Your task to perform on an android device: Open network settings Image 0: 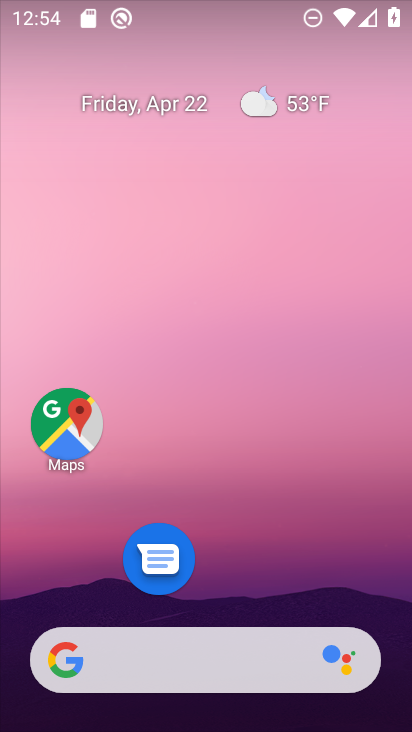
Step 0: drag from (226, 665) to (228, 119)
Your task to perform on an android device: Open network settings Image 1: 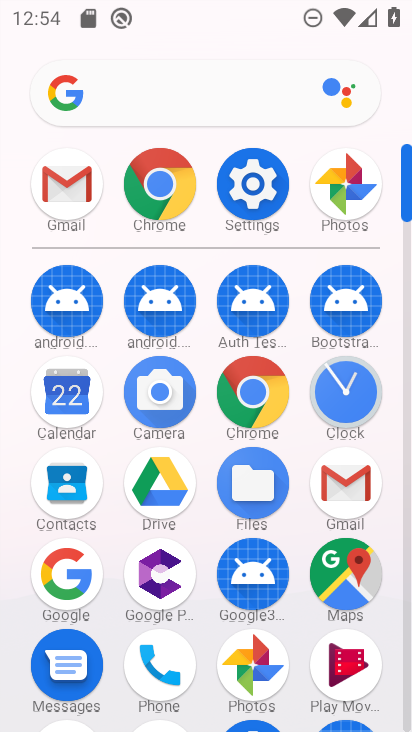
Step 1: click (254, 174)
Your task to perform on an android device: Open network settings Image 2: 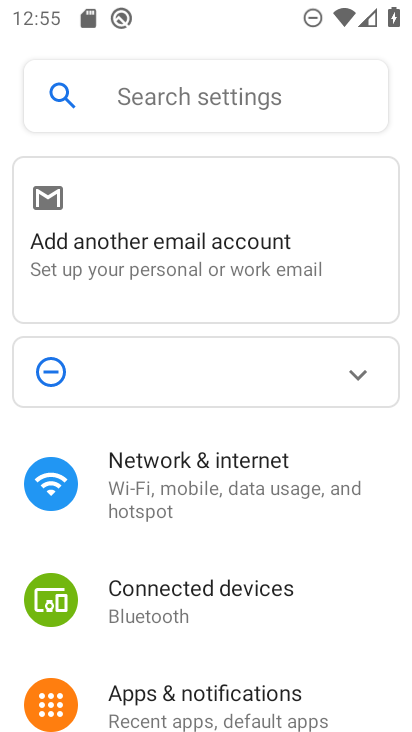
Step 2: click (152, 474)
Your task to perform on an android device: Open network settings Image 3: 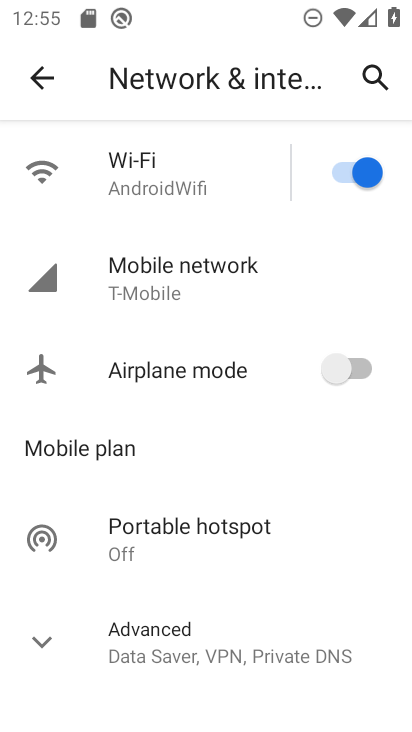
Step 3: task complete